Your task to perform on an android device: change the clock display to show seconds Image 0: 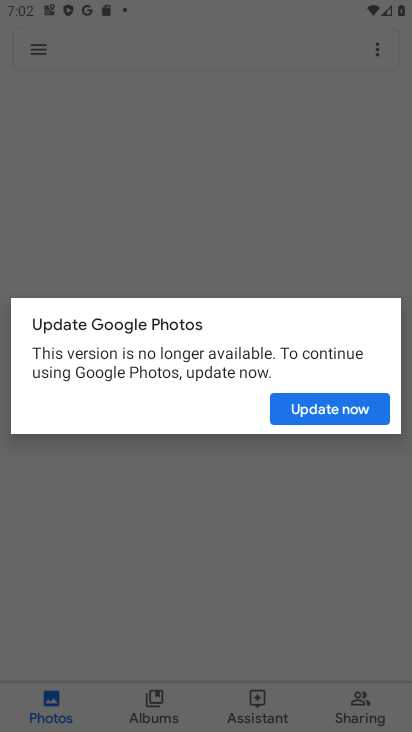
Step 0: press home button
Your task to perform on an android device: change the clock display to show seconds Image 1: 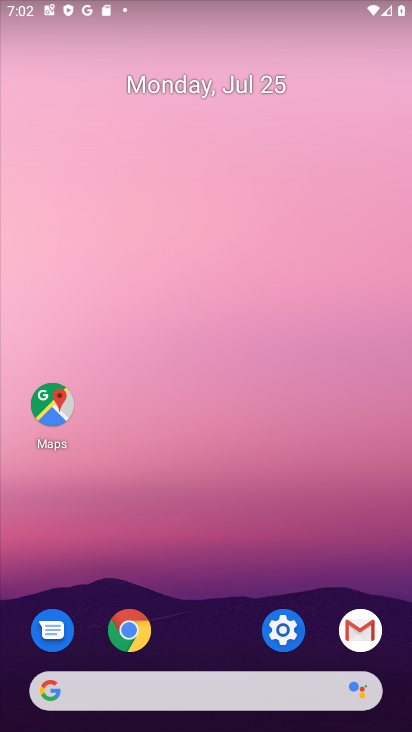
Step 1: drag from (267, 555) to (272, 41)
Your task to perform on an android device: change the clock display to show seconds Image 2: 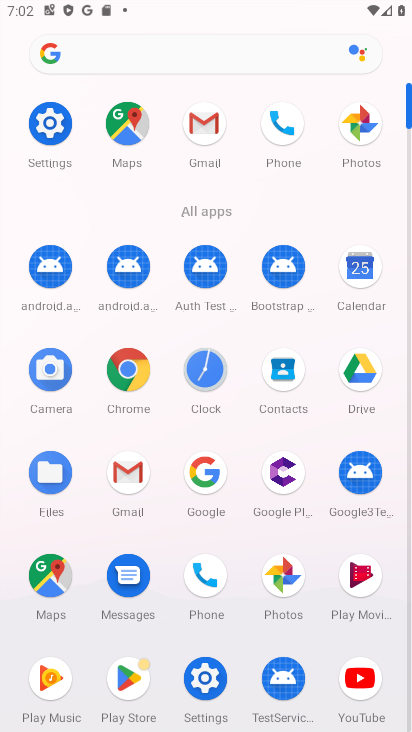
Step 2: click (212, 373)
Your task to perform on an android device: change the clock display to show seconds Image 3: 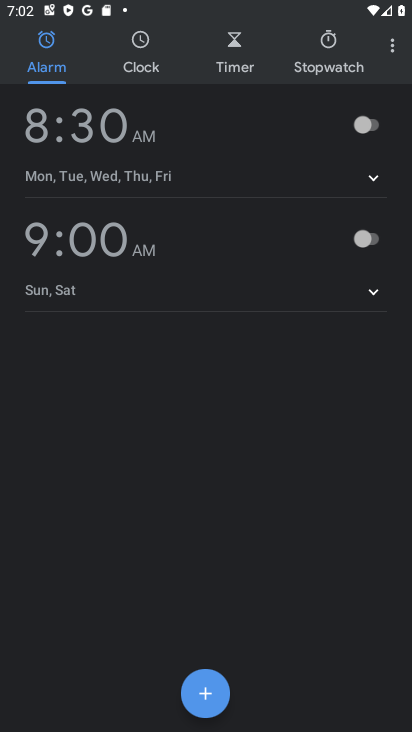
Step 3: click (392, 52)
Your task to perform on an android device: change the clock display to show seconds Image 4: 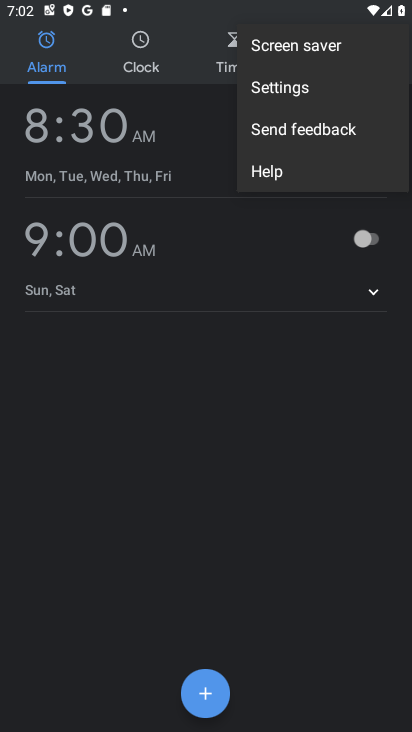
Step 4: click (282, 96)
Your task to perform on an android device: change the clock display to show seconds Image 5: 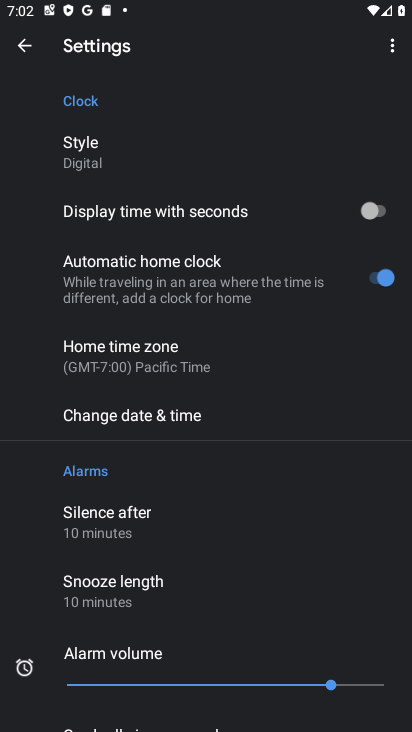
Step 5: click (344, 227)
Your task to perform on an android device: change the clock display to show seconds Image 6: 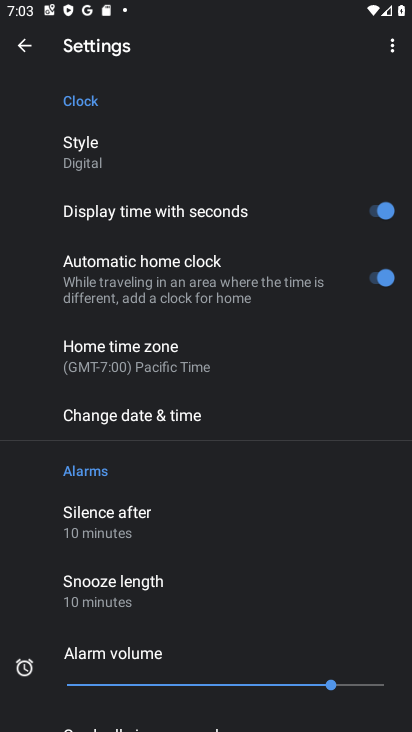
Step 6: task complete